Your task to perform on an android device: Go to Yahoo.com Image 0: 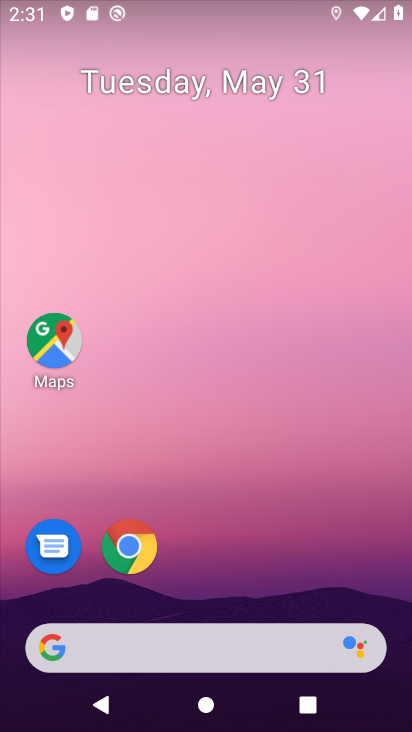
Step 0: click (227, 661)
Your task to perform on an android device: Go to Yahoo.com Image 1: 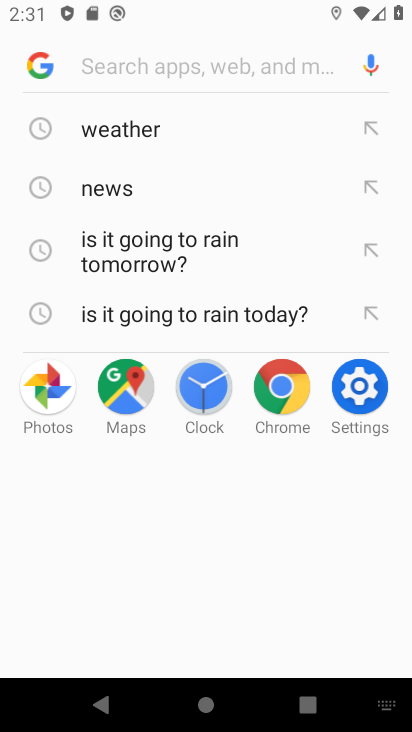
Step 1: type "yahoo.com"
Your task to perform on an android device: Go to Yahoo.com Image 2: 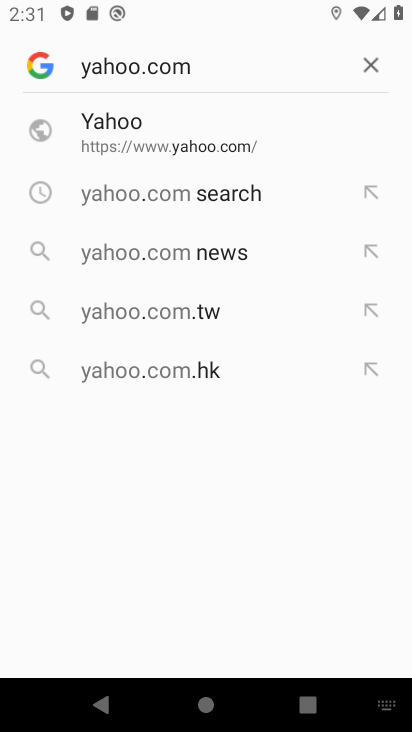
Step 2: click (174, 151)
Your task to perform on an android device: Go to Yahoo.com Image 3: 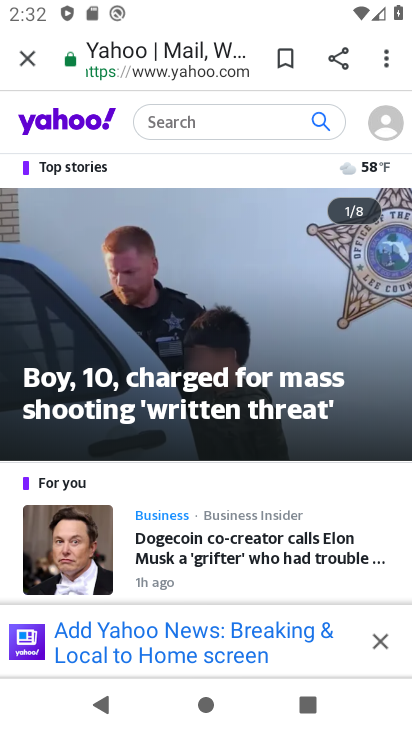
Step 3: task complete